Your task to perform on an android device: check out phone information Image 0: 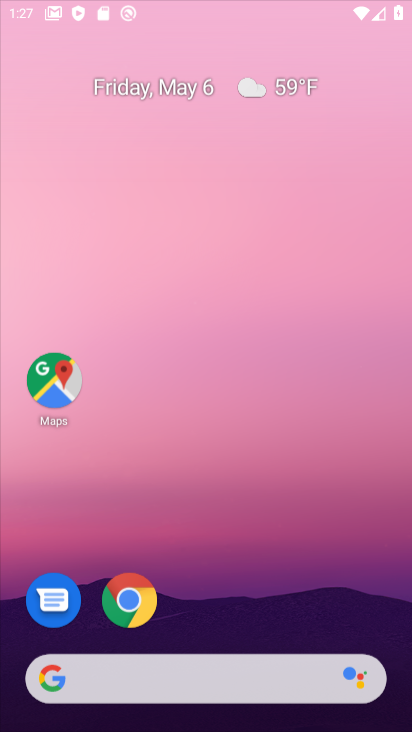
Step 0: click (306, 5)
Your task to perform on an android device: check out phone information Image 1: 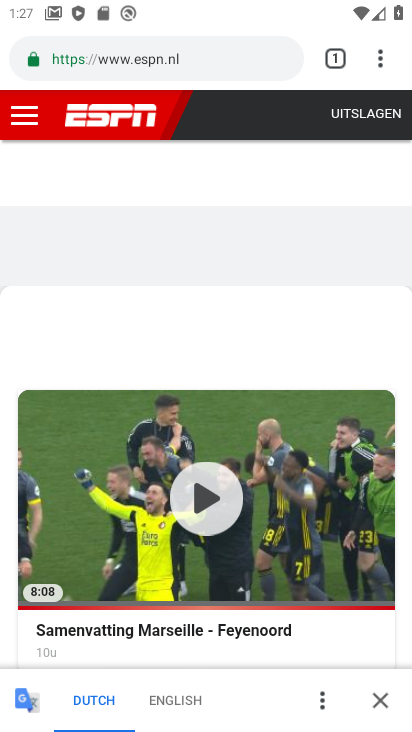
Step 1: press home button
Your task to perform on an android device: check out phone information Image 2: 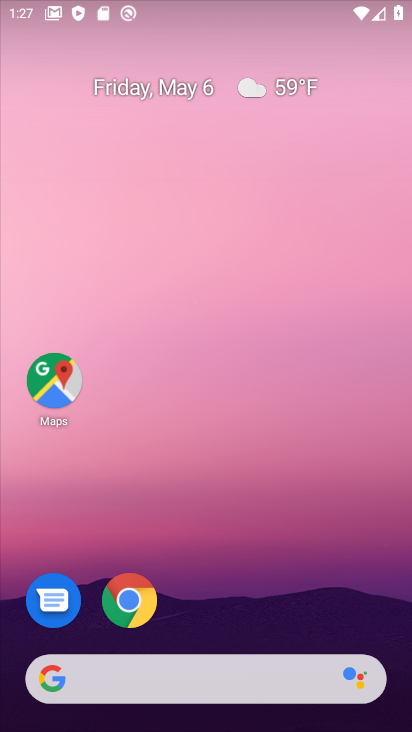
Step 2: drag from (230, 588) to (283, 86)
Your task to perform on an android device: check out phone information Image 3: 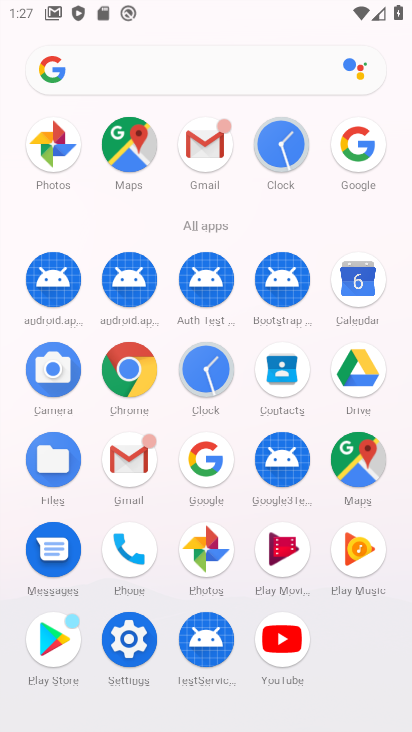
Step 3: click (139, 633)
Your task to perform on an android device: check out phone information Image 4: 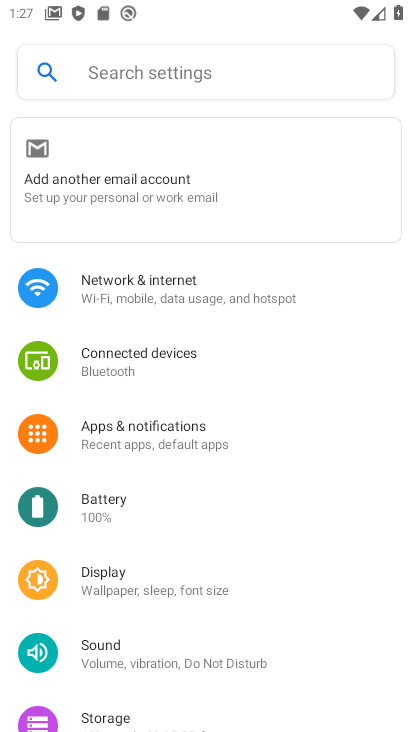
Step 4: drag from (215, 597) to (294, 85)
Your task to perform on an android device: check out phone information Image 5: 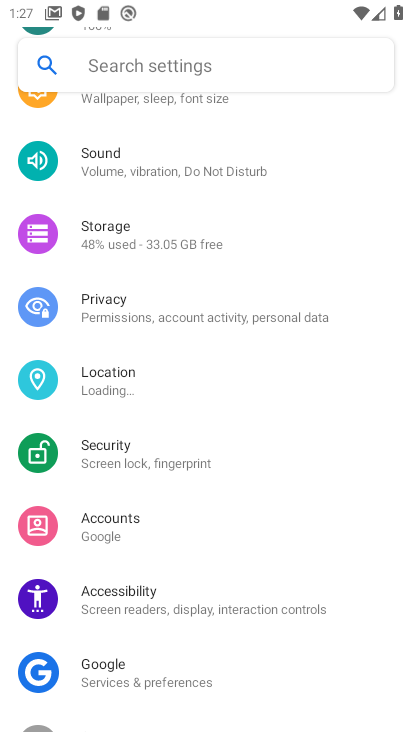
Step 5: drag from (193, 693) to (266, 7)
Your task to perform on an android device: check out phone information Image 6: 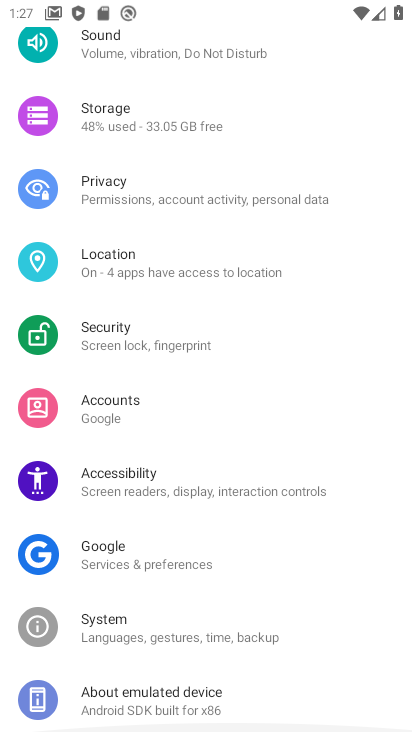
Step 6: click (154, 705)
Your task to perform on an android device: check out phone information Image 7: 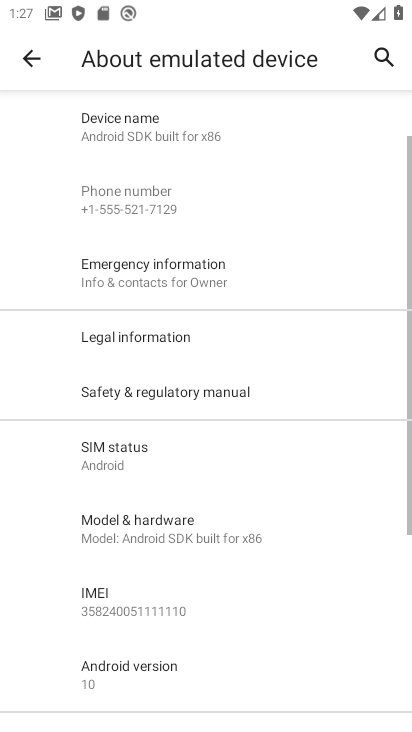
Step 7: task complete